Your task to perform on an android device: allow cookies in the chrome app Image 0: 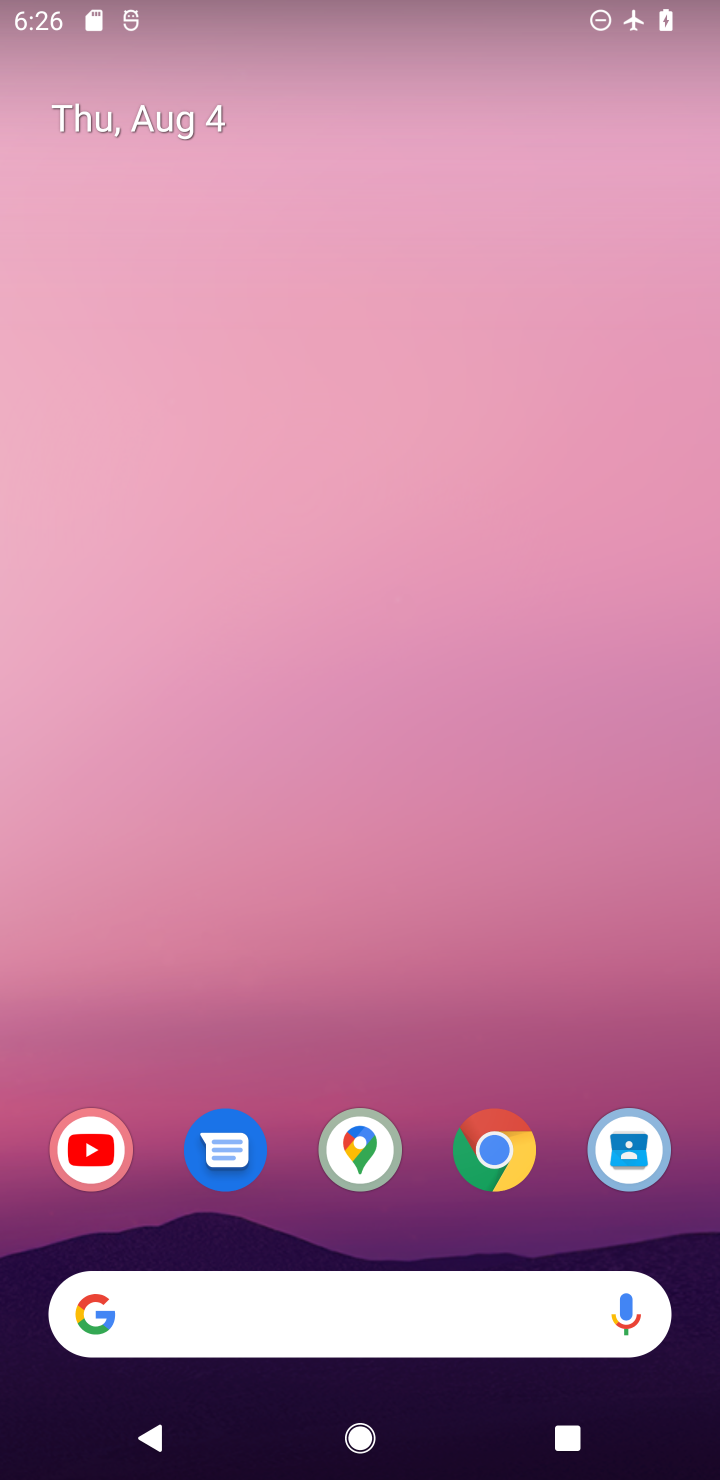
Step 0: press home button
Your task to perform on an android device: allow cookies in the chrome app Image 1: 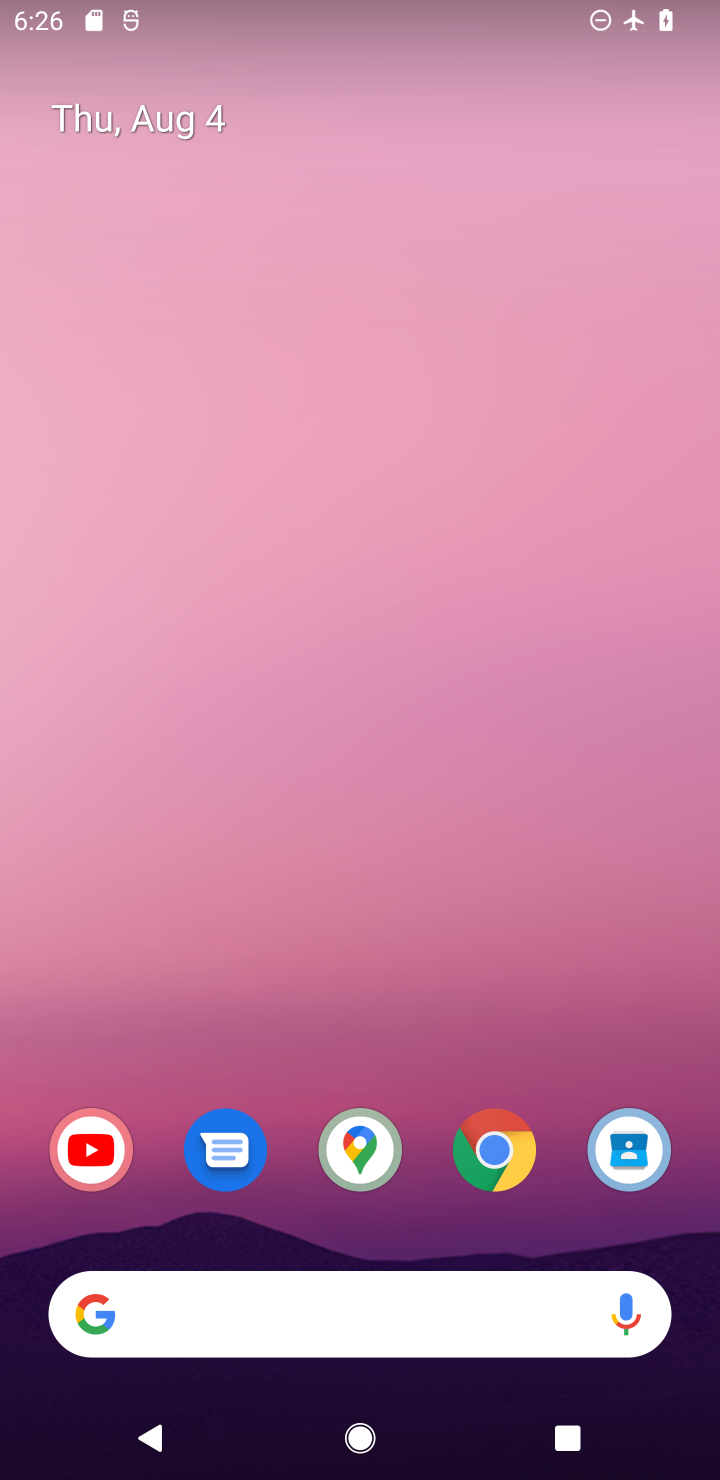
Step 1: drag from (406, 646) to (372, 488)
Your task to perform on an android device: allow cookies in the chrome app Image 2: 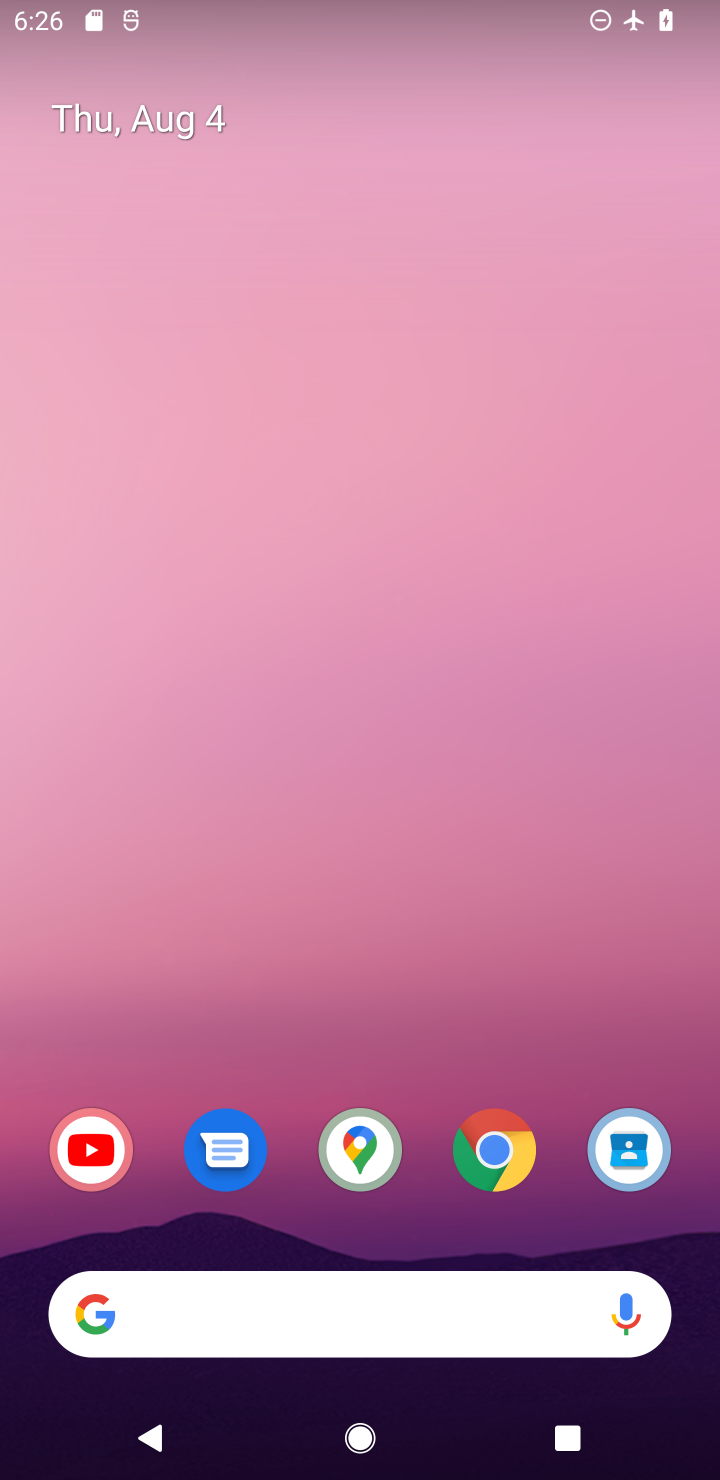
Step 2: drag from (445, 1293) to (534, 62)
Your task to perform on an android device: allow cookies in the chrome app Image 3: 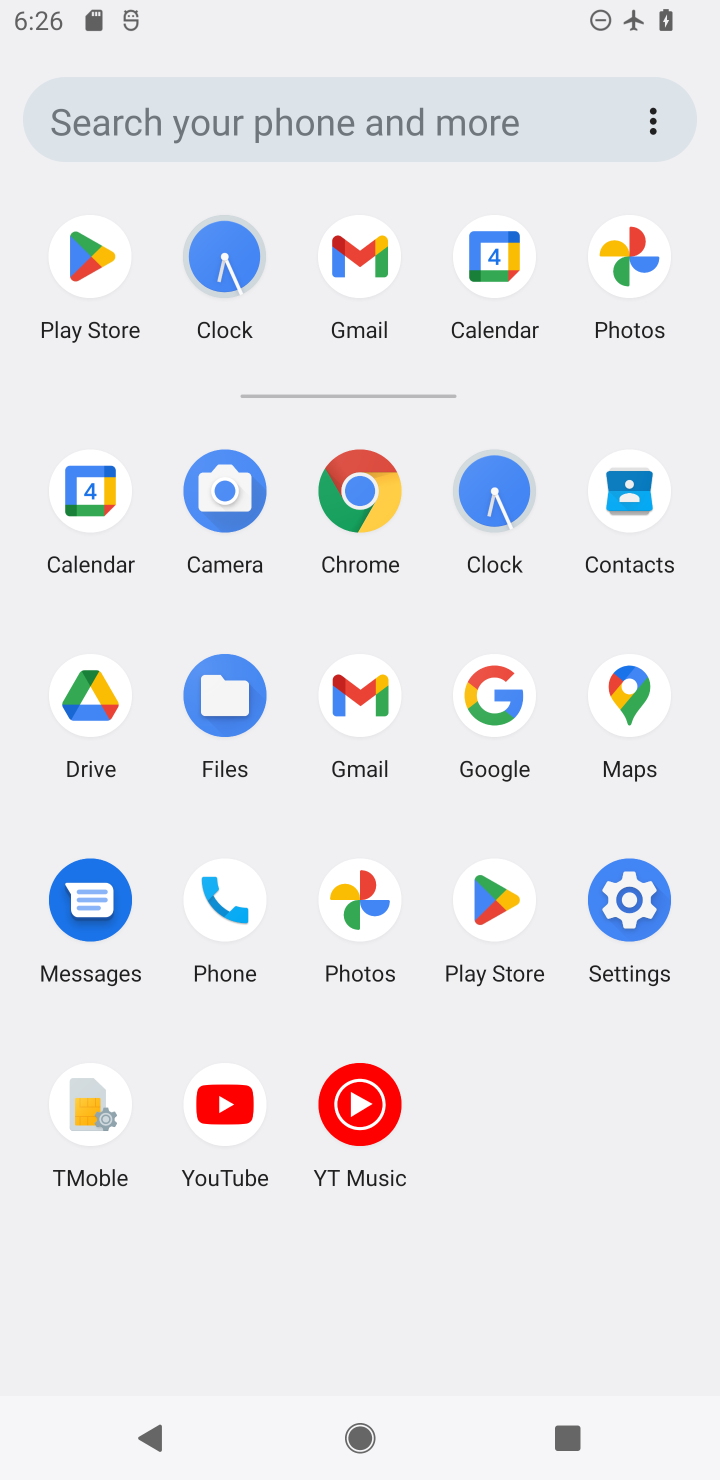
Step 3: click (343, 503)
Your task to perform on an android device: allow cookies in the chrome app Image 4: 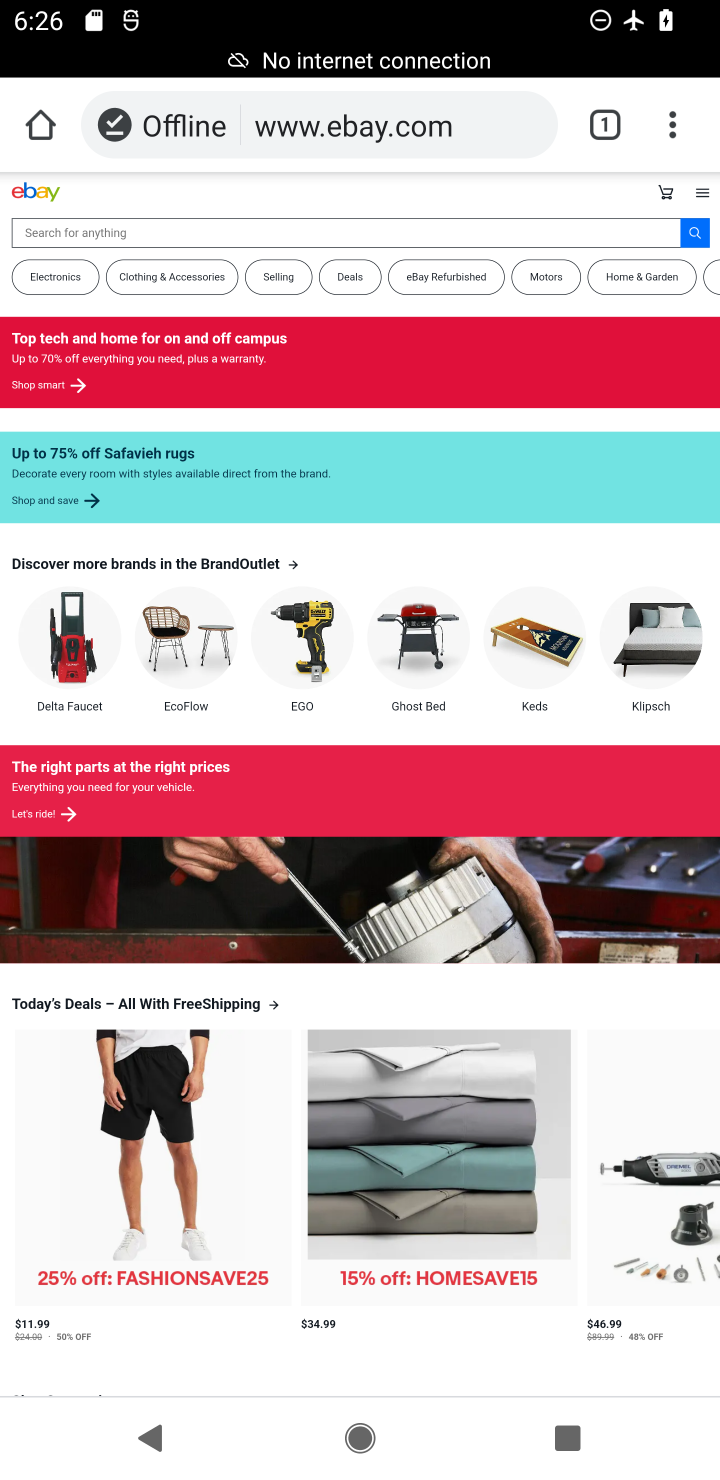
Step 4: drag from (639, 12) to (447, 1172)
Your task to perform on an android device: allow cookies in the chrome app Image 5: 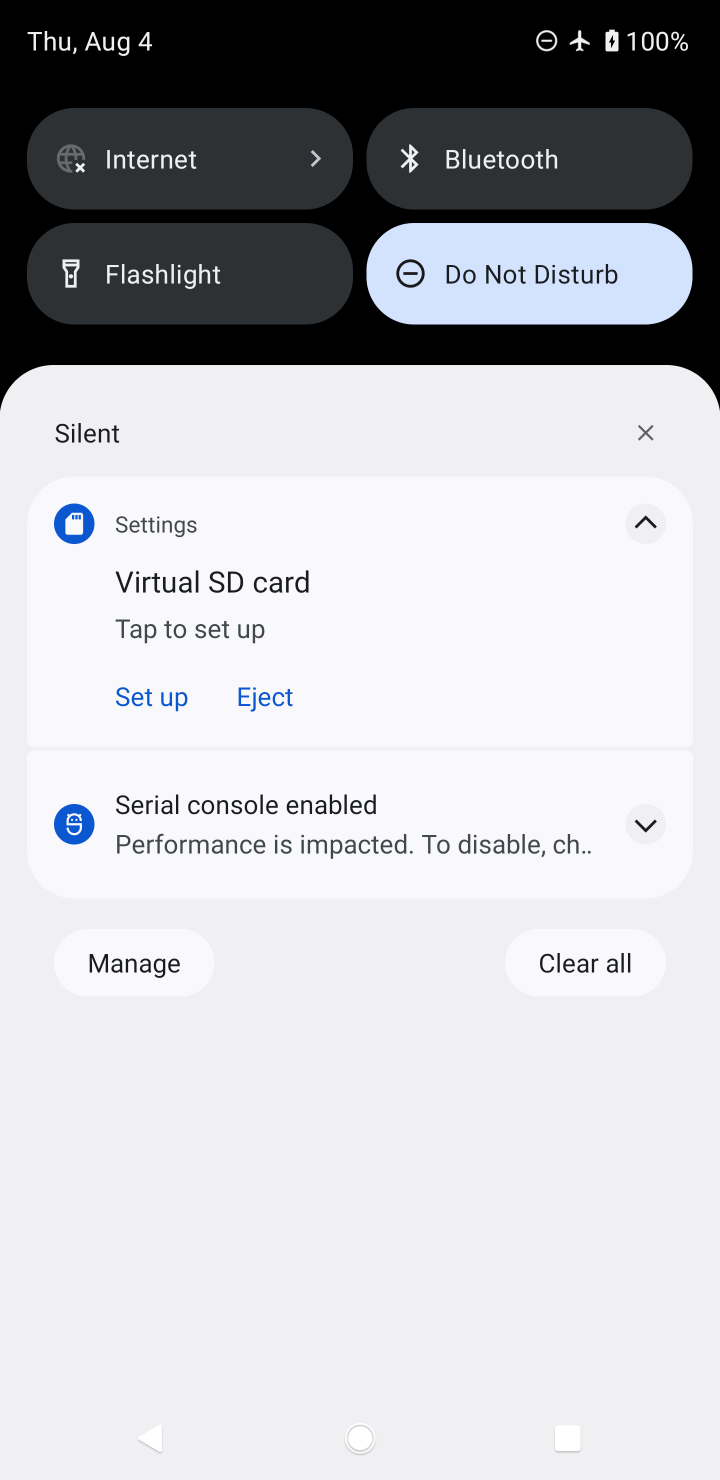
Step 5: drag from (349, 333) to (219, 1226)
Your task to perform on an android device: allow cookies in the chrome app Image 6: 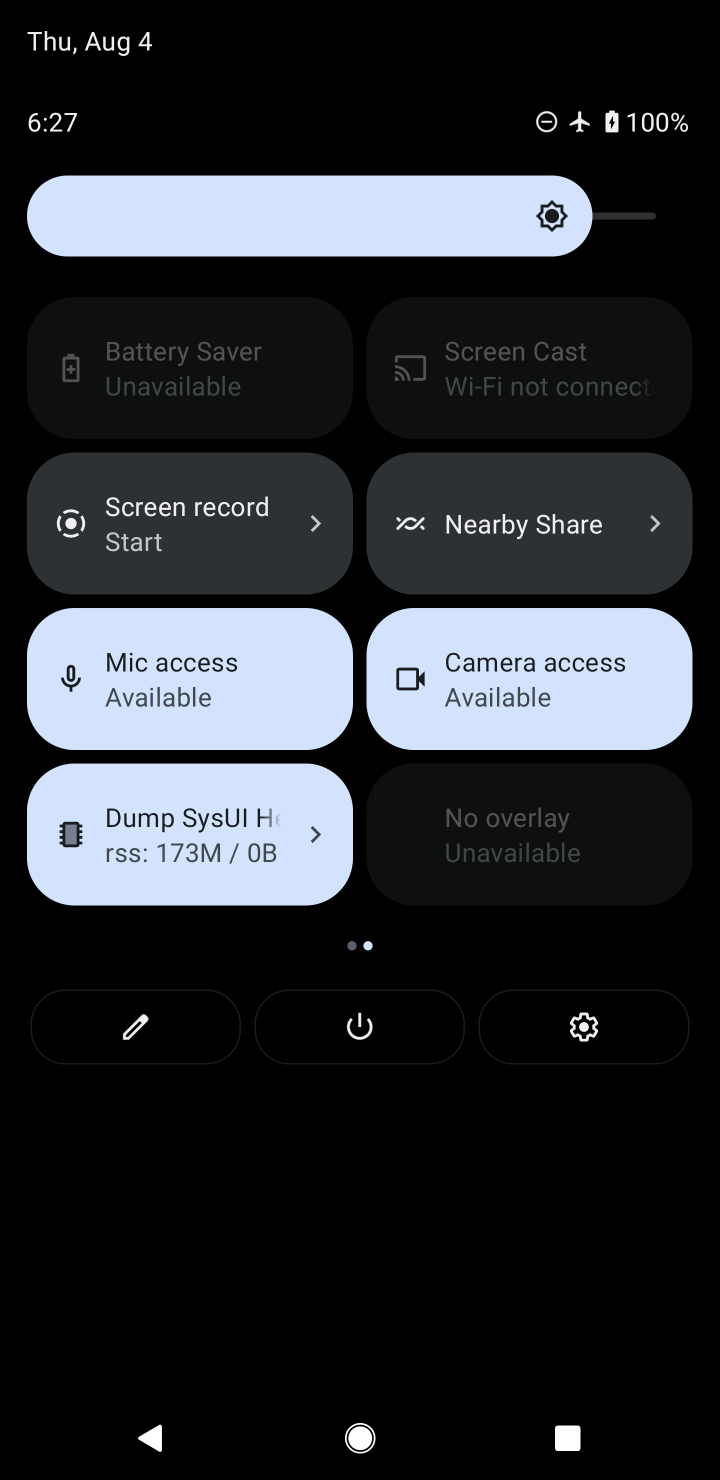
Step 6: drag from (420, 378) to (415, 1220)
Your task to perform on an android device: allow cookies in the chrome app Image 7: 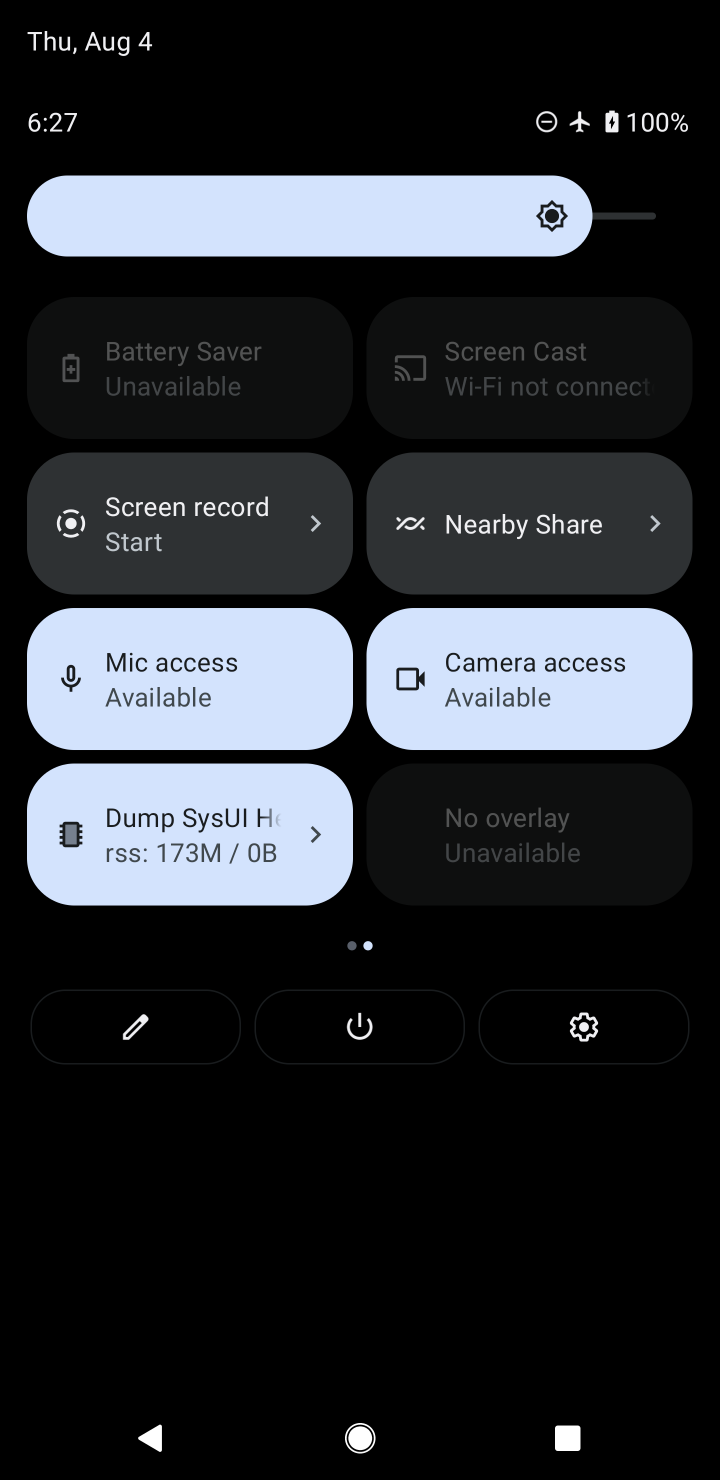
Step 7: drag from (24, 691) to (630, 713)
Your task to perform on an android device: allow cookies in the chrome app Image 8: 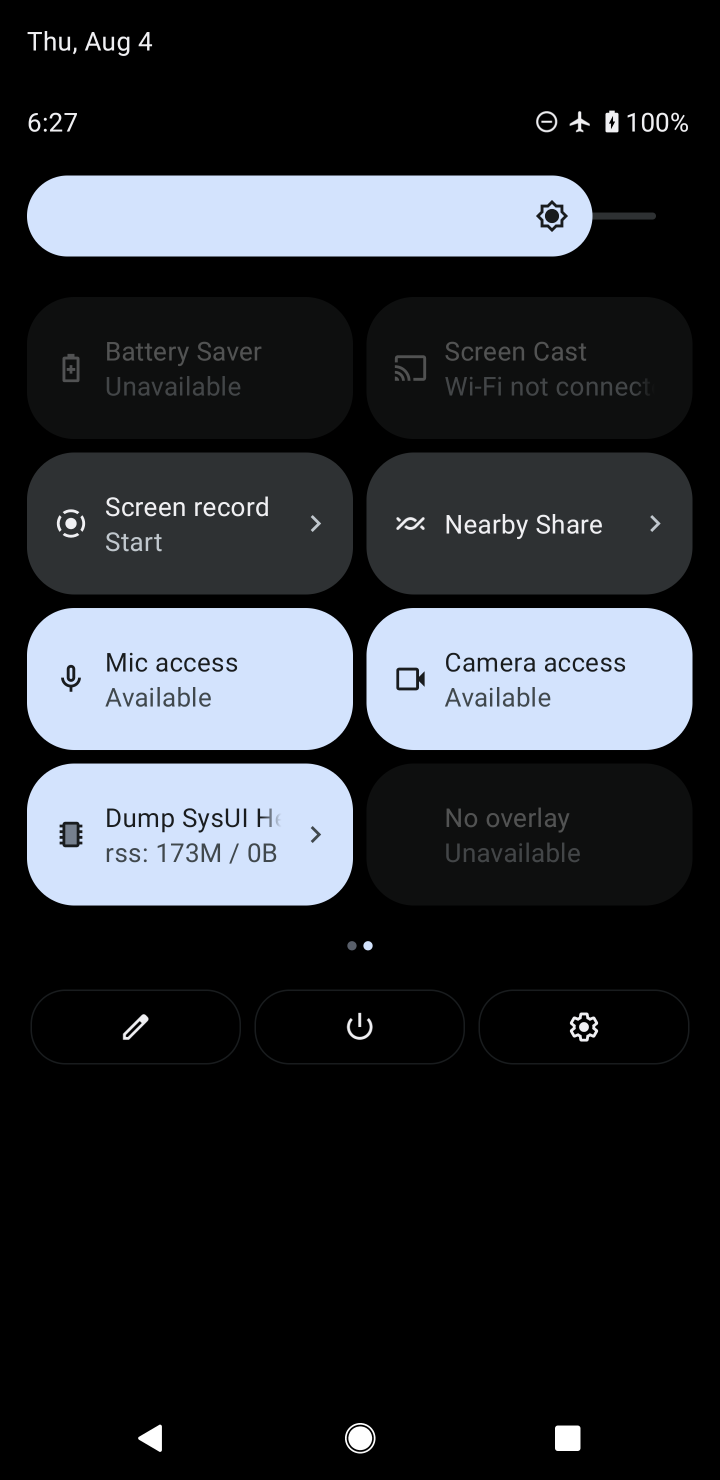
Step 8: drag from (375, 1438) to (451, 50)
Your task to perform on an android device: allow cookies in the chrome app Image 9: 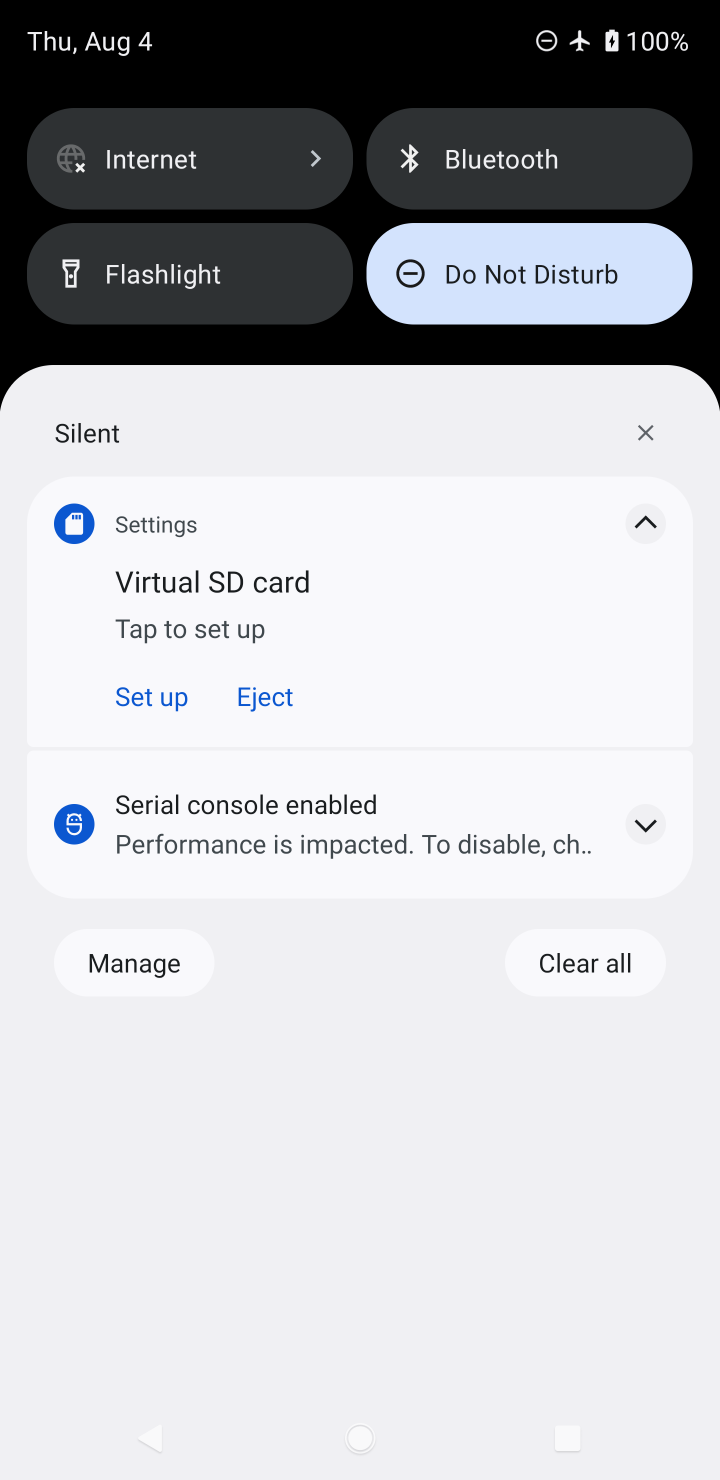
Step 9: click (341, 317)
Your task to perform on an android device: allow cookies in the chrome app Image 10: 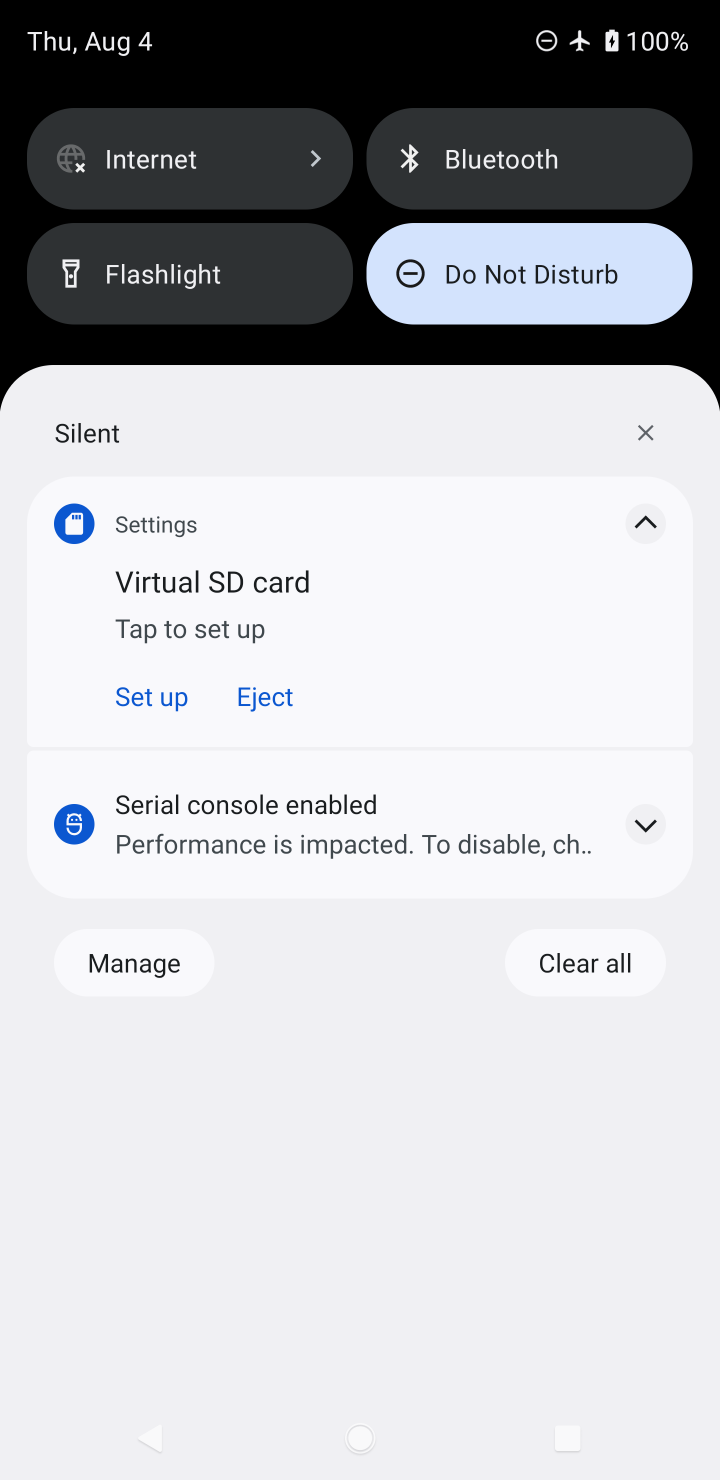
Step 10: task complete